Your task to perform on an android device: turn pop-ups off in chrome Image 0: 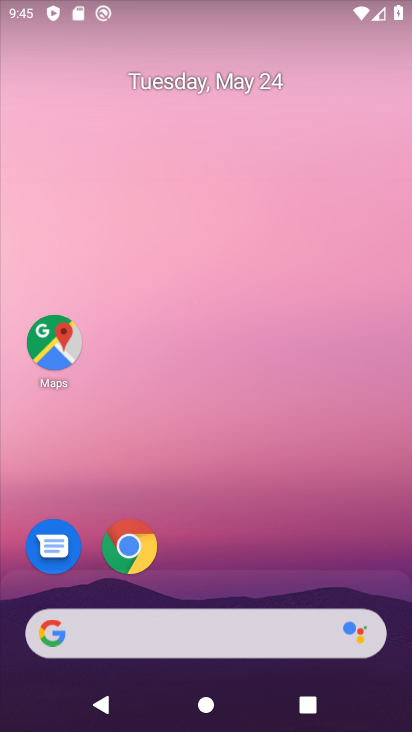
Step 0: click (138, 555)
Your task to perform on an android device: turn pop-ups off in chrome Image 1: 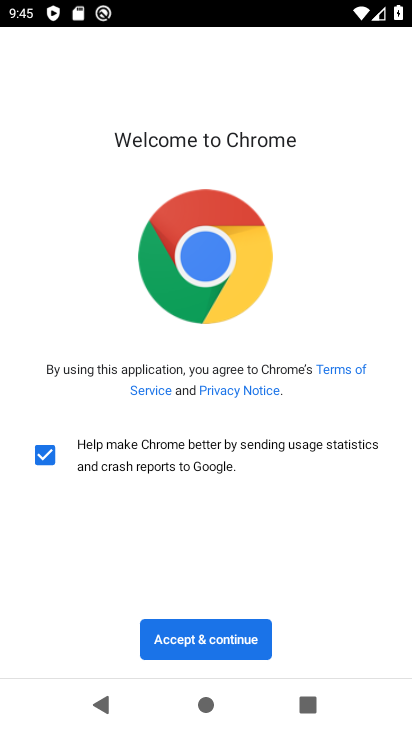
Step 1: click (226, 646)
Your task to perform on an android device: turn pop-ups off in chrome Image 2: 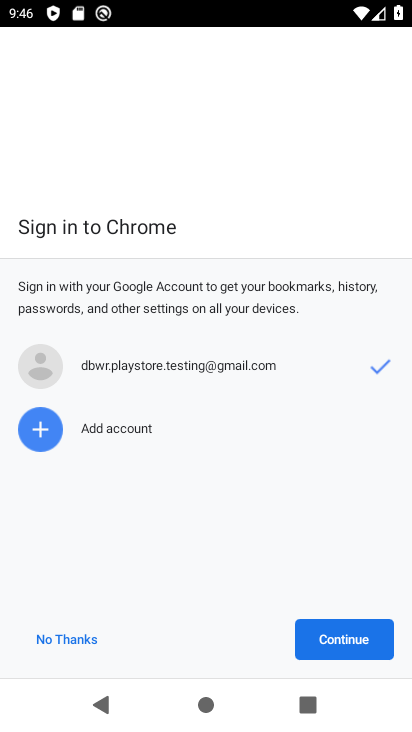
Step 2: click (333, 648)
Your task to perform on an android device: turn pop-ups off in chrome Image 3: 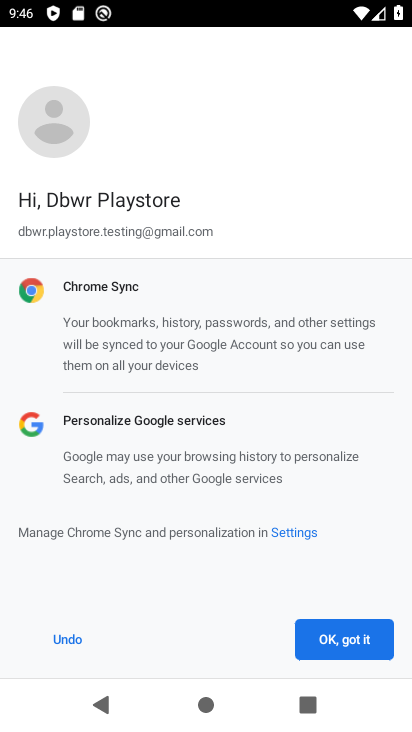
Step 3: click (333, 648)
Your task to perform on an android device: turn pop-ups off in chrome Image 4: 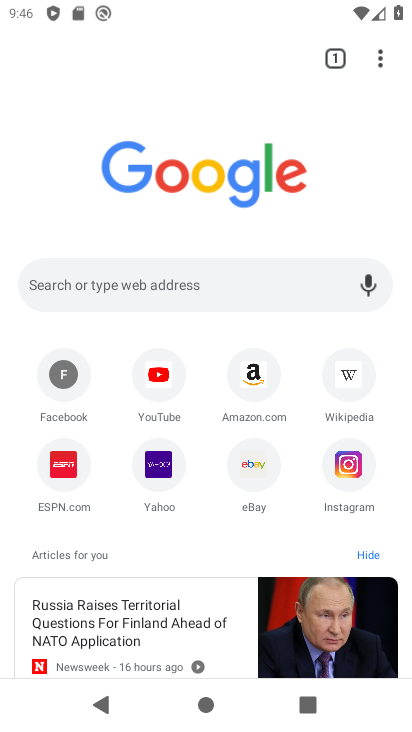
Step 4: click (382, 57)
Your task to perform on an android device: turn pop-ups off in chrome Image 5: 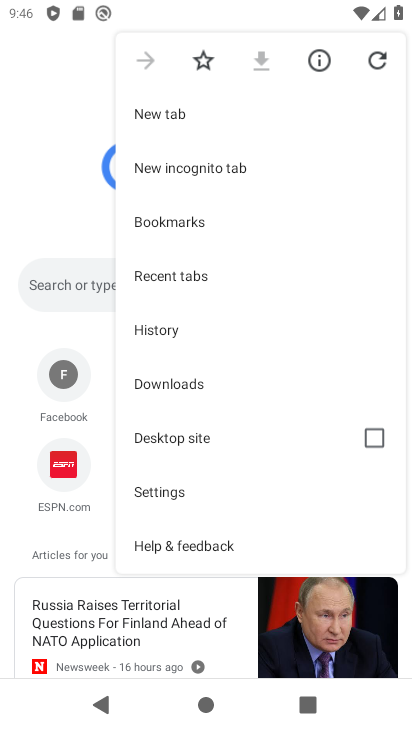
Step 5: click (233, 501)
Your task to perform on an android device: turn pop-ups off in chrome Image 6: 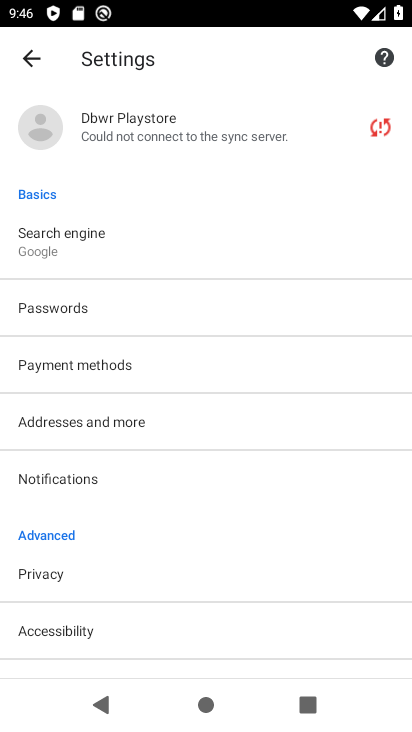
Step 6: drag from (200, 622) to (218, 121)
Your task to perform on an android device: turn pop-ups off in chrome Image 7: 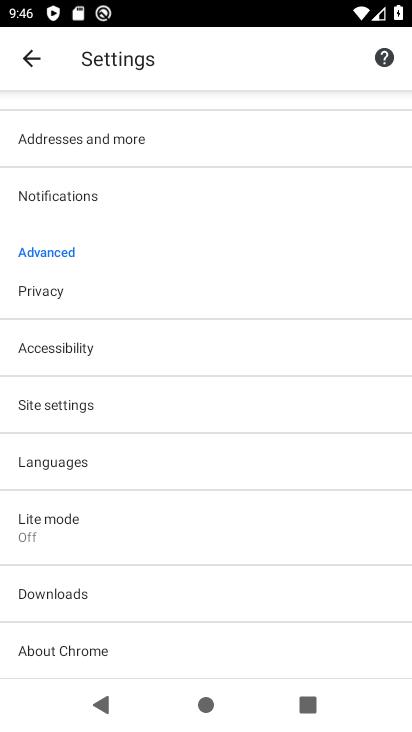
Step 7: click (123, 408)
Your task to perform on an android device: turn pop-ups off in chrome Image 8: 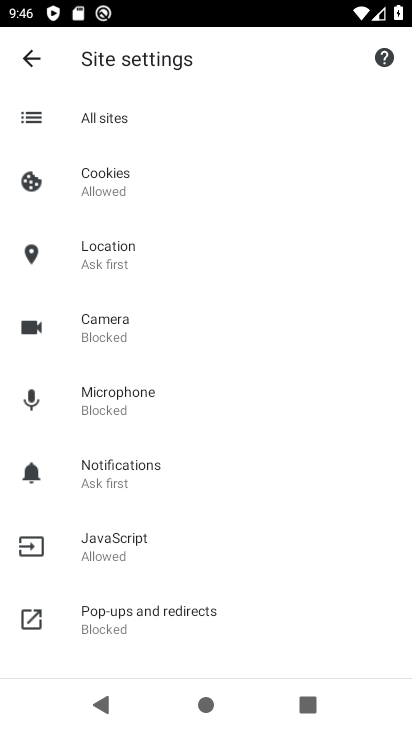
Step 8: drag from (199, 569) to (158, 263)
Your task to perform on an android device: turn pop-ups off in chrome Image 9: 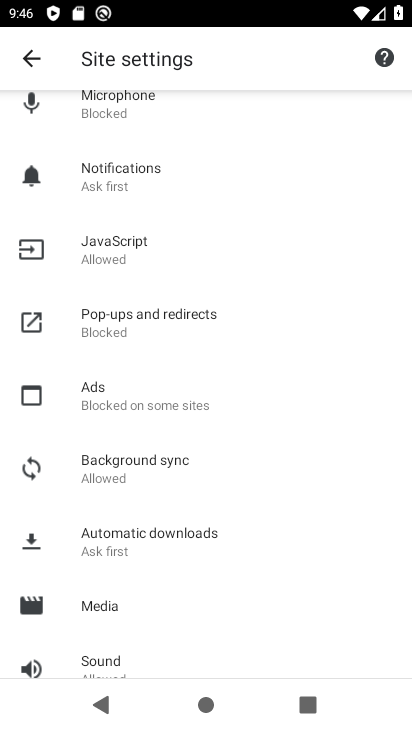
Step 9: click (161, 330)
Your task to perform on an android device: turn pop-ups off in chrome Image 10: 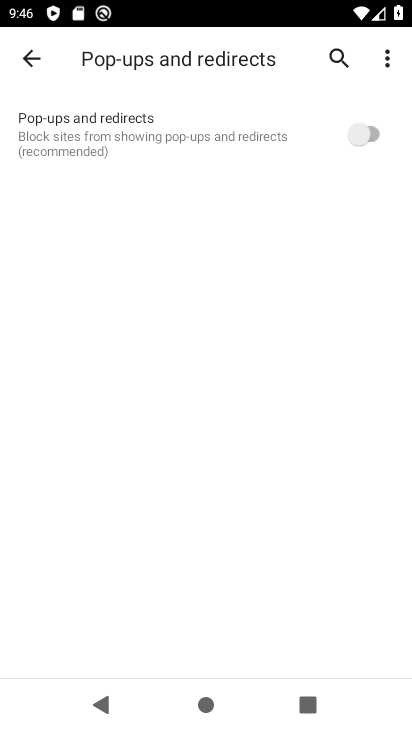
Step 10: task complete